Your task to perform on an android device: toggle sleep mode Image 0: 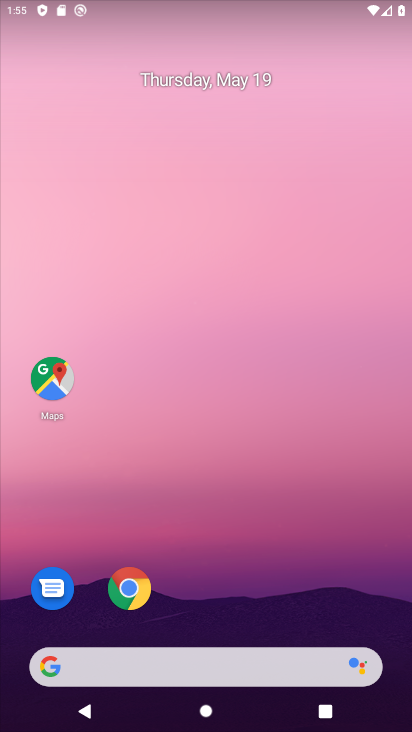
Step 0: drag from (297, 558) to (230, 67)
Your task to perform on an android device: toggle sleep mode Image 1: 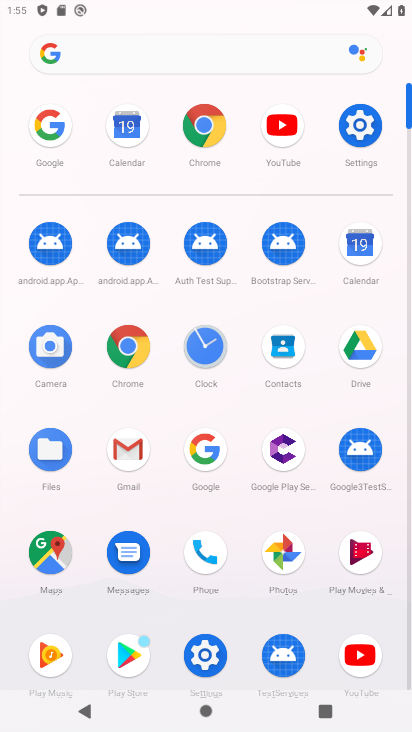
Step 1: click (363, 124)
Your task to perform on an android device: toggle sleep mode Image 2: 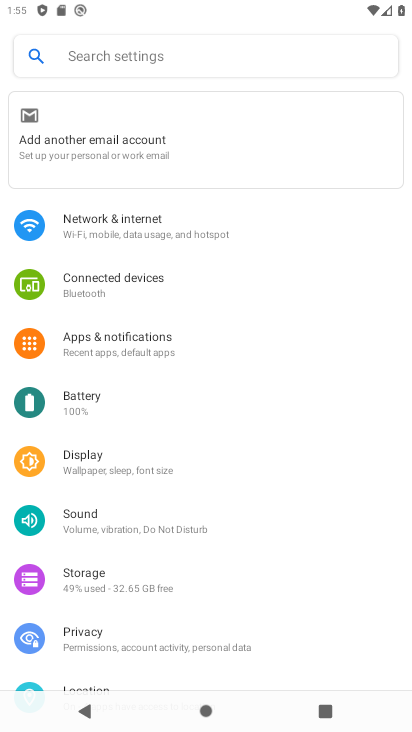
Step 2: click (138, 466)
Your task to perform on an android device: toggle sleep mode Image 3: 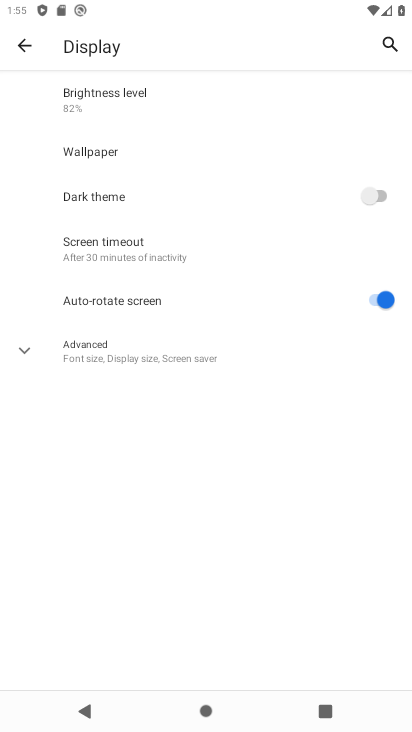
Step 3: click (108, 355)
Your task to perform on an android device: toggle sleep mode Image 4: 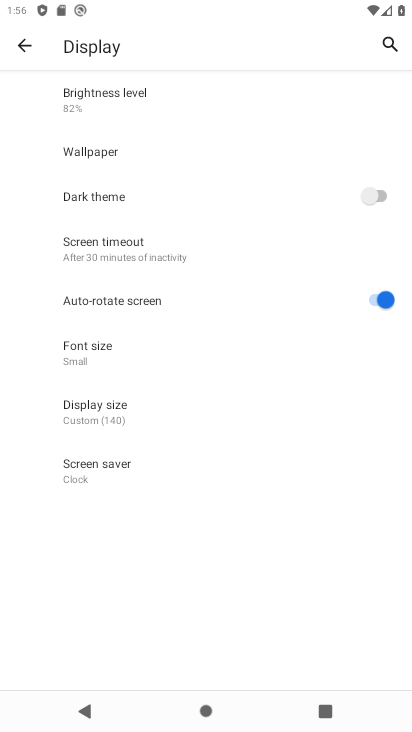
Step 4: click (113, 262)
Your task to perform on an android device: toggle sleep mode Image 5: 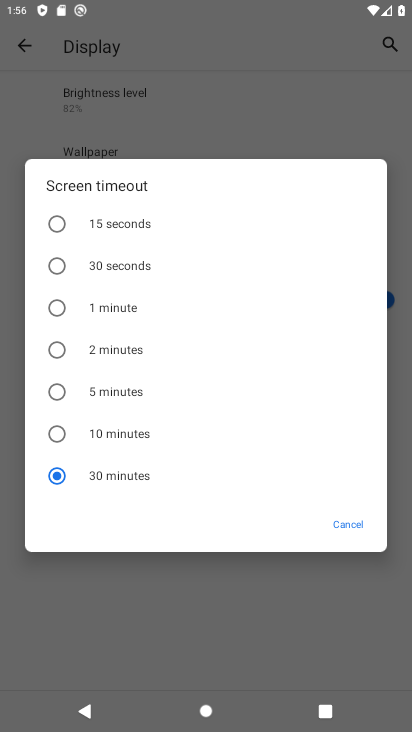
Step 5: click (57, 300)
Your task to perform on an android device: toggle sleep mode Image 6: 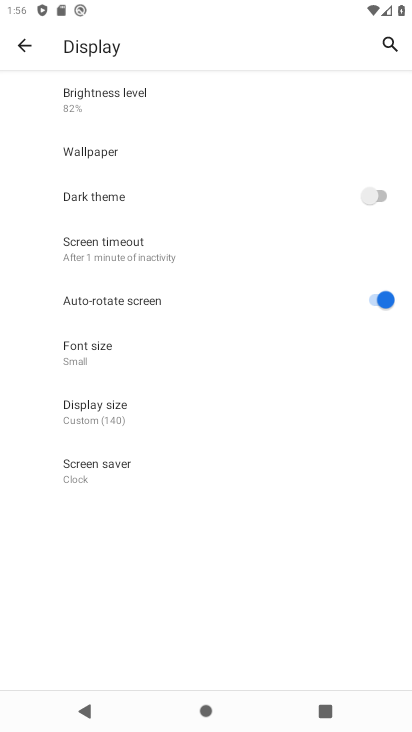
Step 6: task complete